Your task to perform on an android device: toggle wifi Image 0: 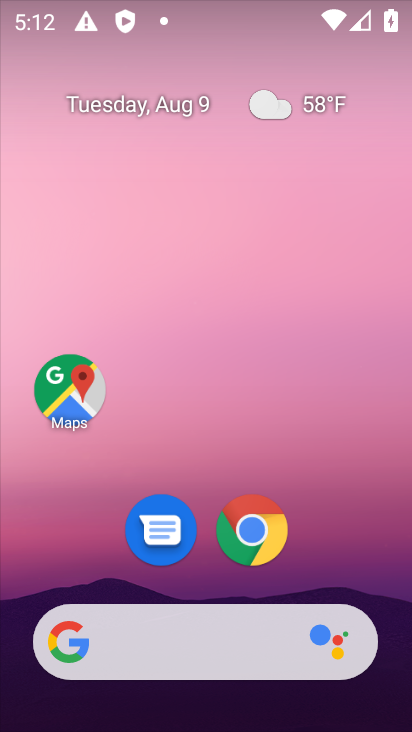
Step 0: drag from (172, 595) to (242, 78)
Your task to perform on an android device: toggle wifi Image 1: 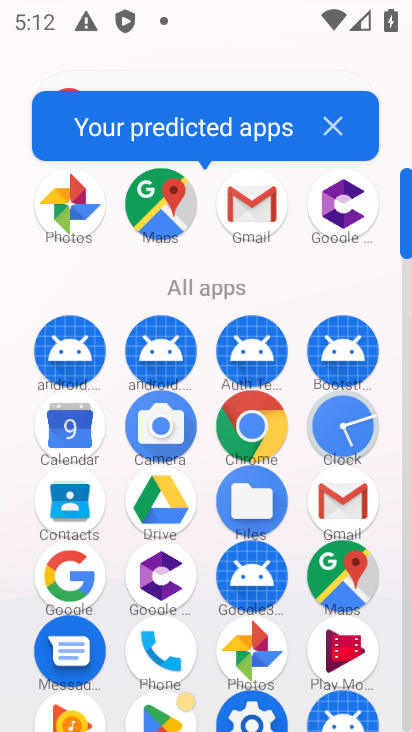
Step 1: click (249, 708)
Your task to perform on an android device: toggle wifi Image 2: 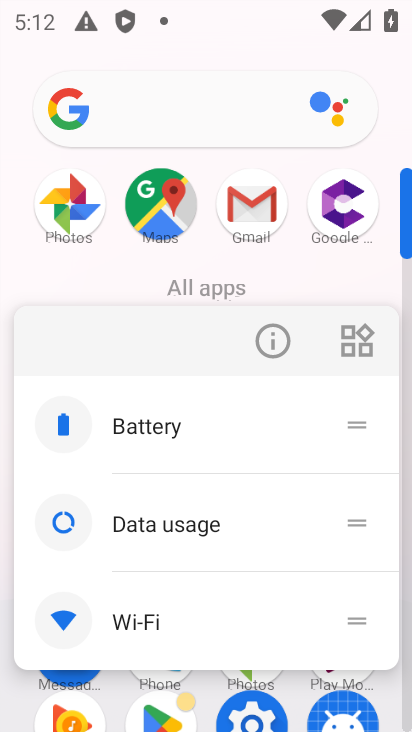
Step 2: click (249, 708)
Your task to perform on an android device: toggle wifi Image 3: 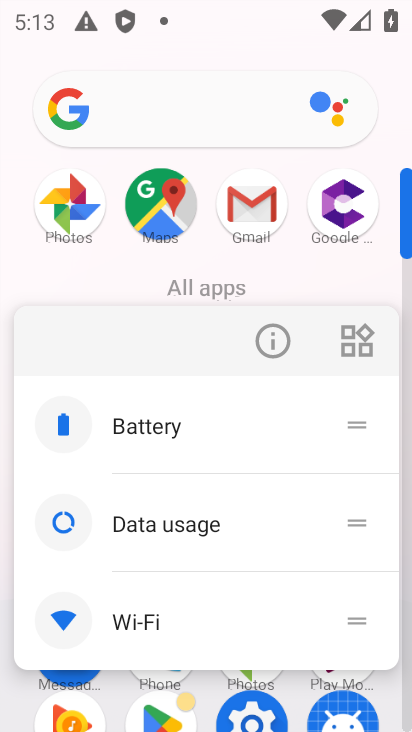
Step 3: click (276, 716)
Your task to perform on an android device: toggle wifi Image 4: 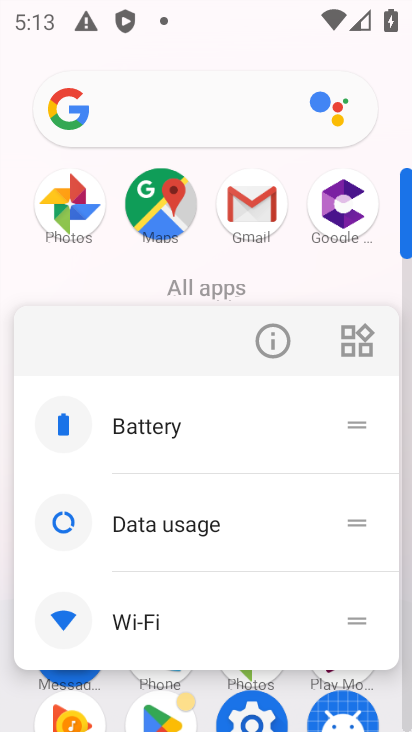
Step 4: click (257, 718)
Your task to perform on an android device: toggle wifi Image 5: 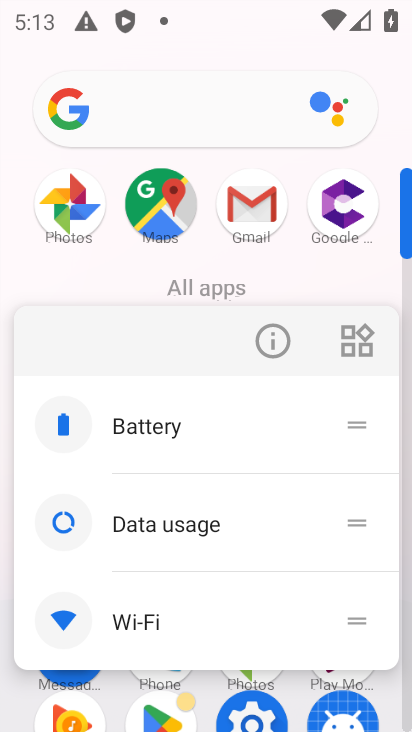
Step 5: drag from (158, 705) to (212, 262)
Your task to perform on an android device: toggle wifi Image 6: 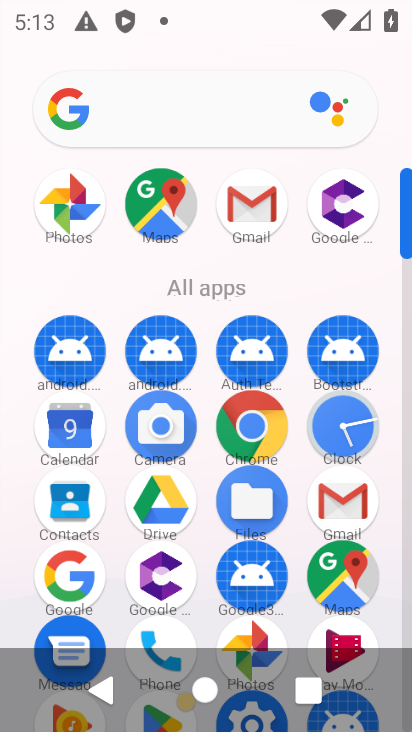
Step 6: drag from (125, 349) to (154, 118)
Your task to perform on an android device: toggle wifi Image 7: 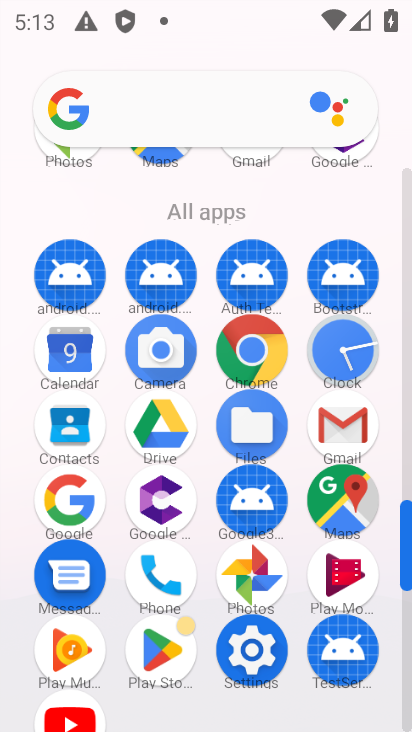
Step 7: click (230, 667)
Your task to perform on an android device: toggle wifi Image 8: 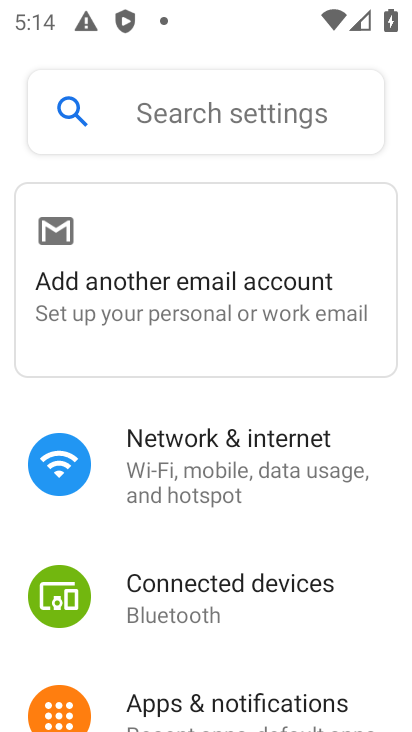
Step 8: click (279, 462)
Your task to perform on an android device: toggle wifi Image 9: 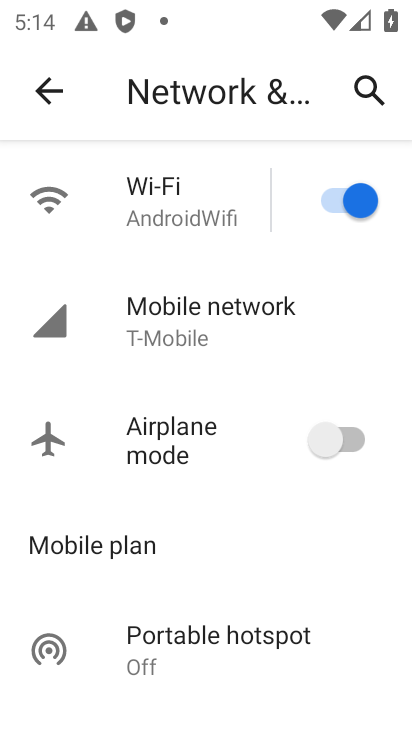
Step 9: click (365, 198)
Your task to perform on an android device: toggle wifi Image 10: 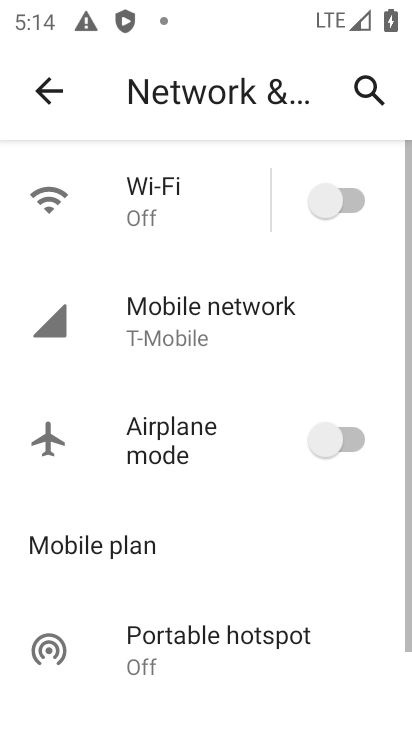
Step 10: task complete